Your task to perform on an android device: add a label to a message in the gmail app Image 0: 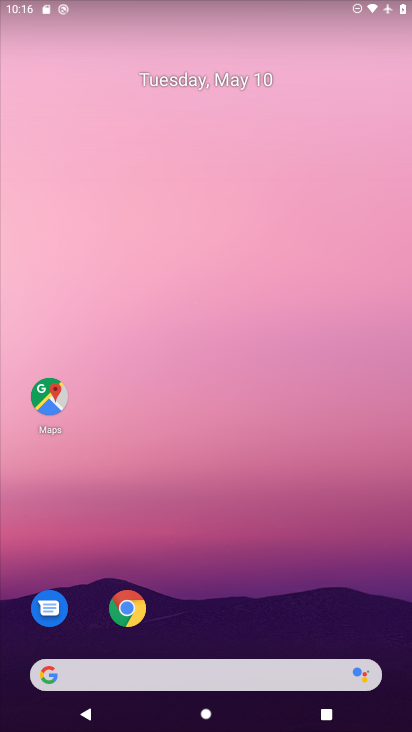
Step 0: drag from (266, 542) to (283, 247)
Your task to perform on an android device: add a label to a message in the gmail app Image 1: 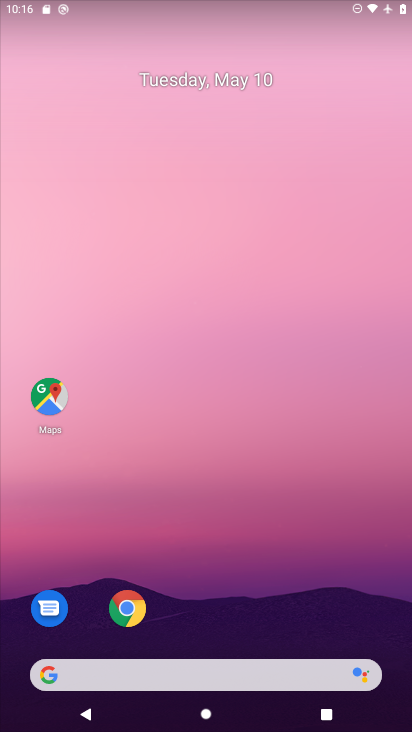
Step 1: drag from (240, 629) to (265, 280)
Your task to perform on an android device: add a label to a message in the gmail app Image 2: 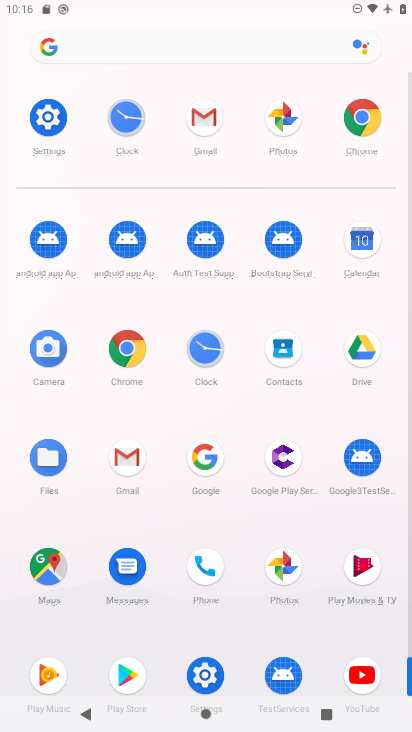
Step 2: click (201, 116)
Your task to perform on an android device: add a label to a message in the gmail app Image 3: 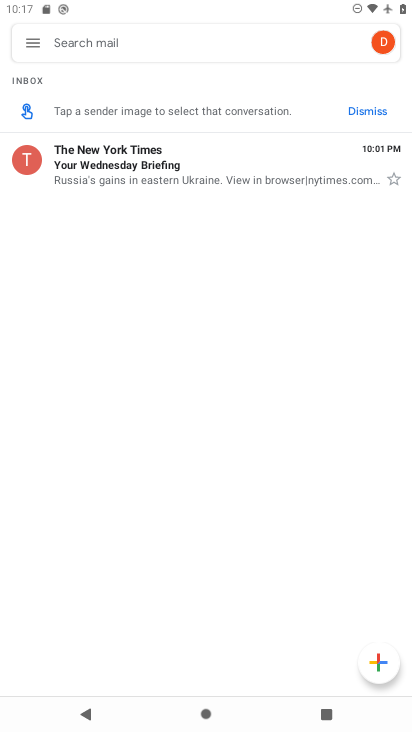
Step 3: click (34, 152)
Your task to perform on an android device: add a label to a message in the gmail app Image 4: 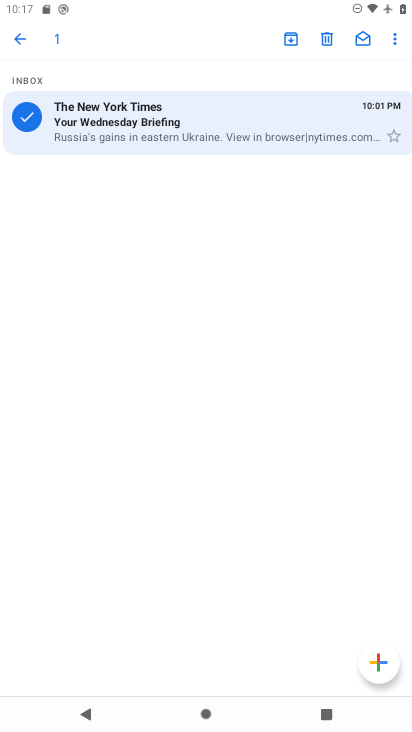
Step 4: click (395, 36)
Your task to perform on an android device: add a label to a message in the gmail app Image 5: 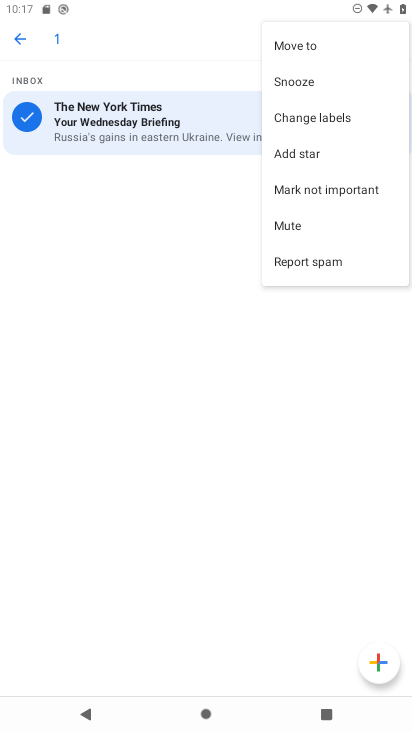
Step 5: click (321, 117)
Your task to perform on an android device: add a label to a message in the gmail app Image 6: 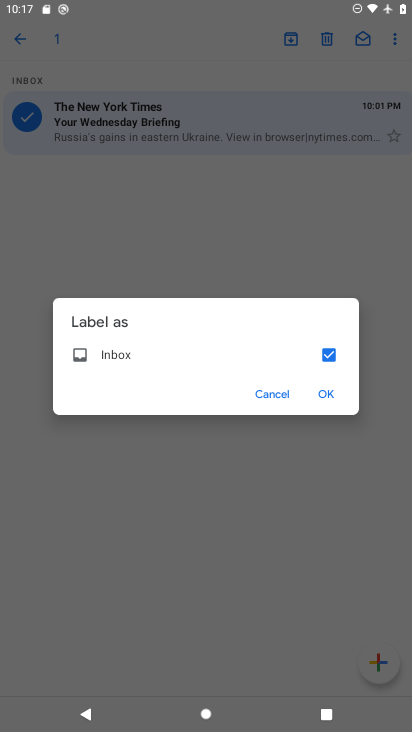
Step 6: click (329, 400)
Your task to perform on an android device: add a label to a message in the gmail app Image 7: 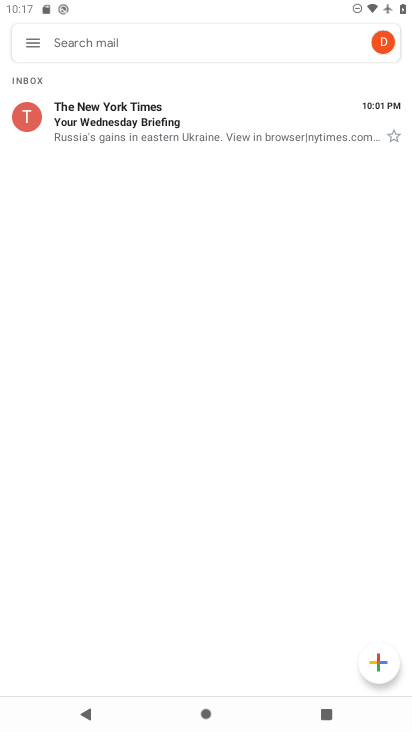
Step 7: task complete